Your task to perform on an android device: all mails in gmail Image 0: 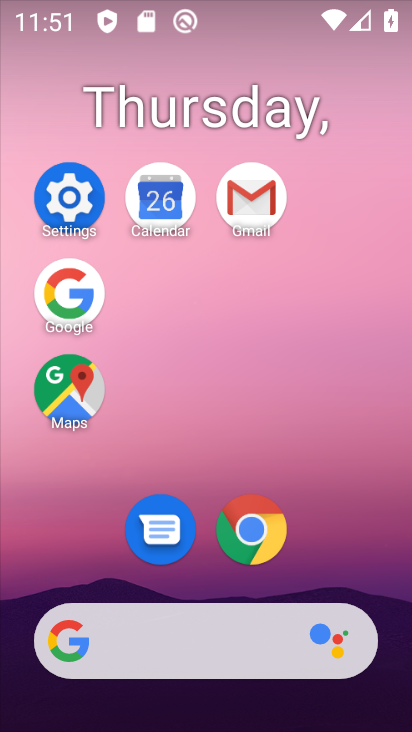
Step 0: click (255, 201)
Your task to perform on an android device: all mails in gmail Image 1: 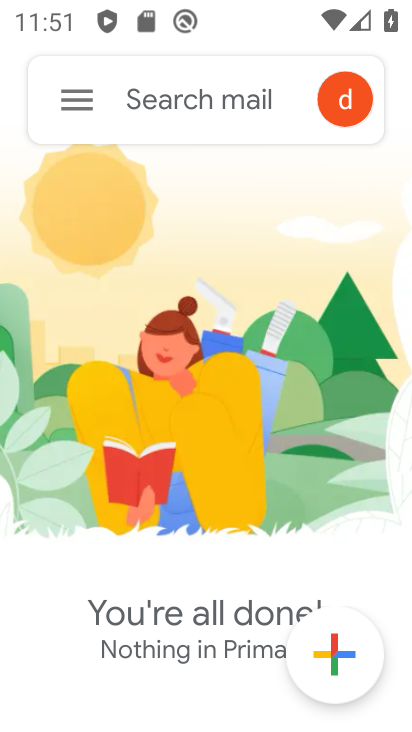
Step 1: click (78, 151)
Your task to perform on an android device: all mails in gmail Image 2: 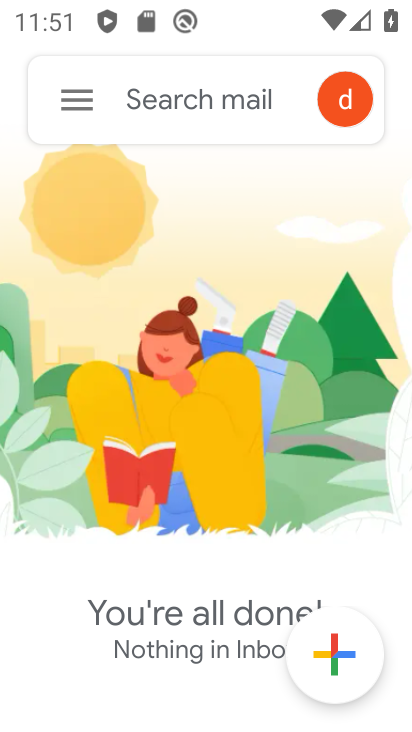
Step 2: click (91, 87)
Your task to perform on an android device: all mails in gmail Image 3: 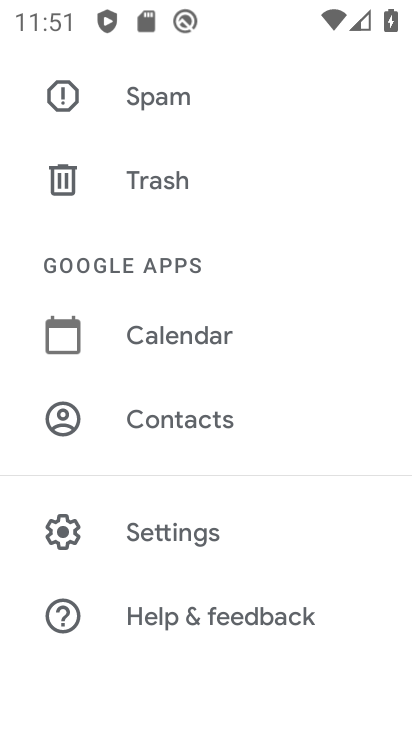
Step 3: drag from (253, 513) to (226, 196)
Your task to perform on an android device: all mails in gmail Image 4: 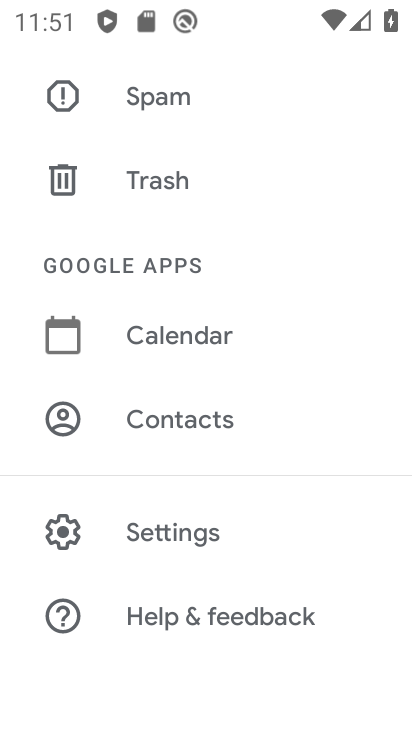
Step 4: drag from (239, 206) to (248, 581)
Your task to perform on an android device: all mails in gmail Image 5: 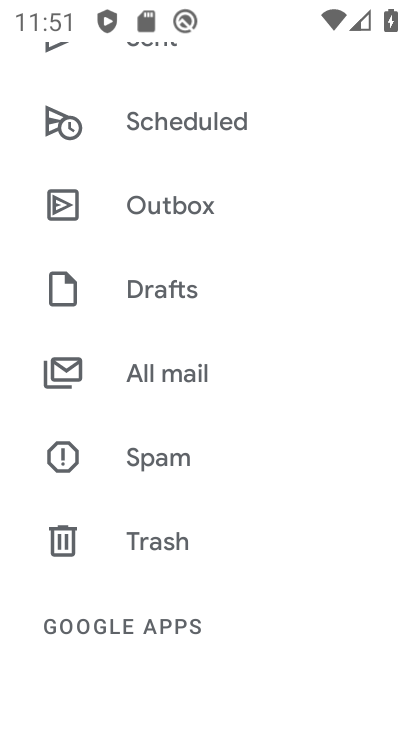
Step 5: click (196, 383)
Your task to perform on an android device: all mails in gmail Image 6: 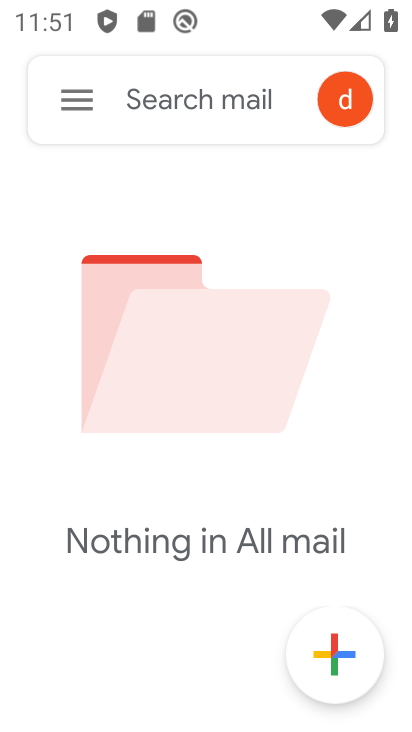
Step 6: task complete